Your task to perform on an android device: toggle priority inbox in the gmail app Image 0: 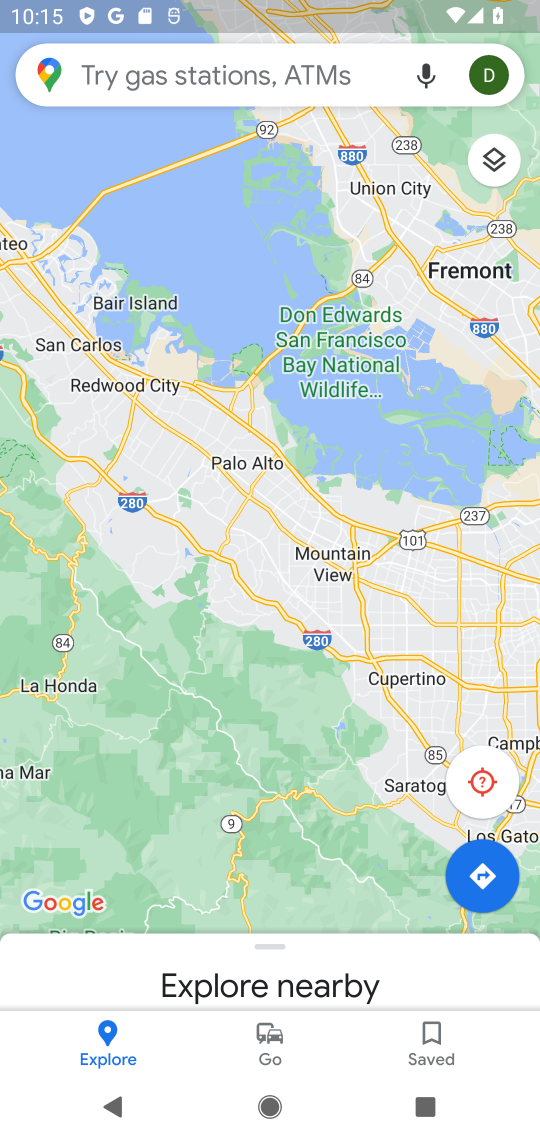
Step 0: press home button
Your task to perform on an android device: toggle priority inbox in the gmail app Image 1: 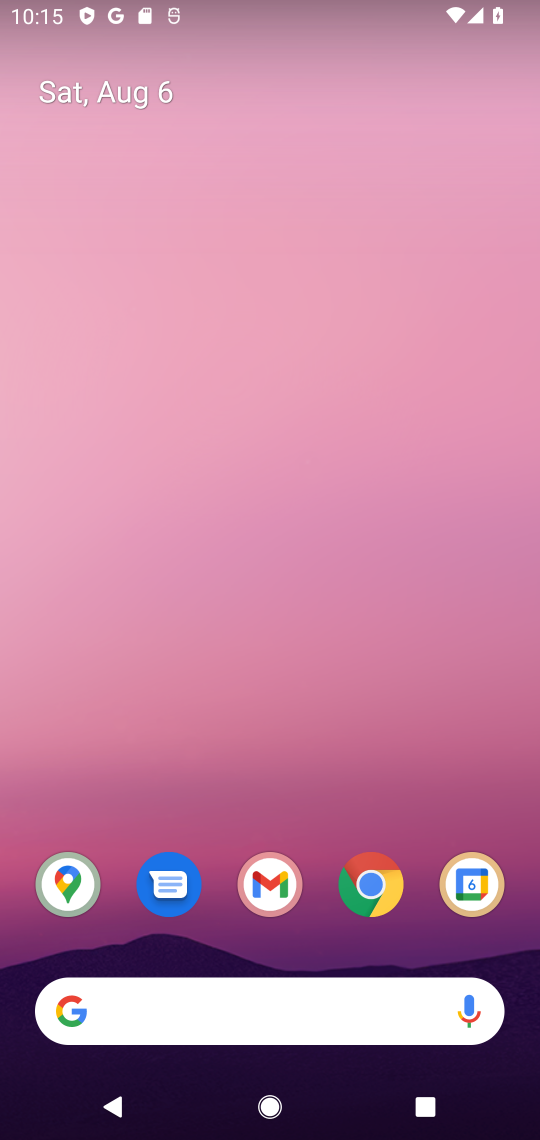
Step 1: click (271, 881)
Your task to perform on an android device: toggle priority inbox in the gmail app Image 2: 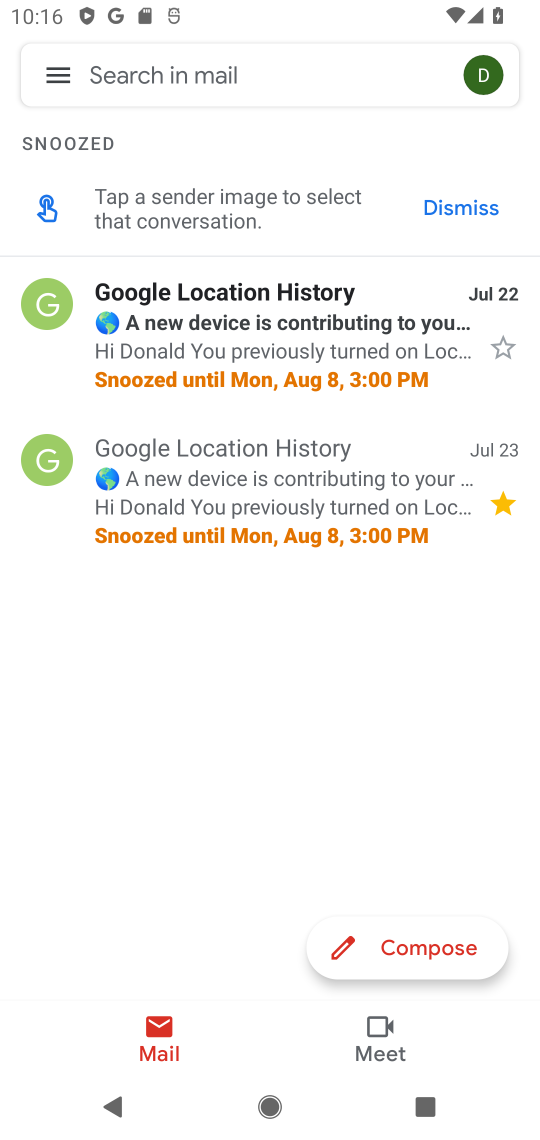
Step 2: click (58, 74)
Your task to perform on an android device: toggle priority inbox in the gmail app Image 3: 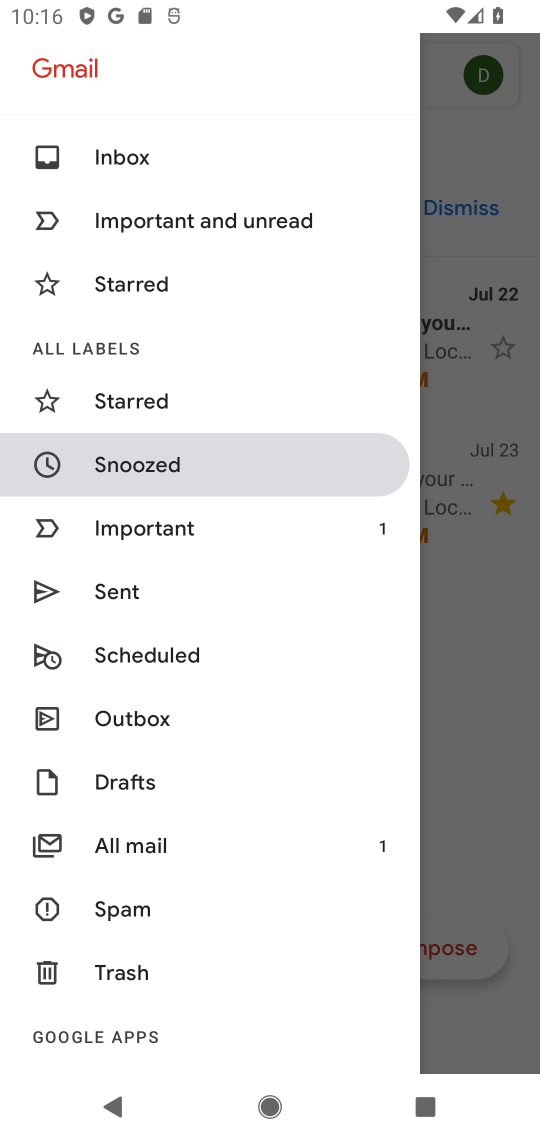
Step 3: drag from (234, 961) to (267, 305)
Your task to perform on an android device: toggle priority inbox in the gmail app Image 4: 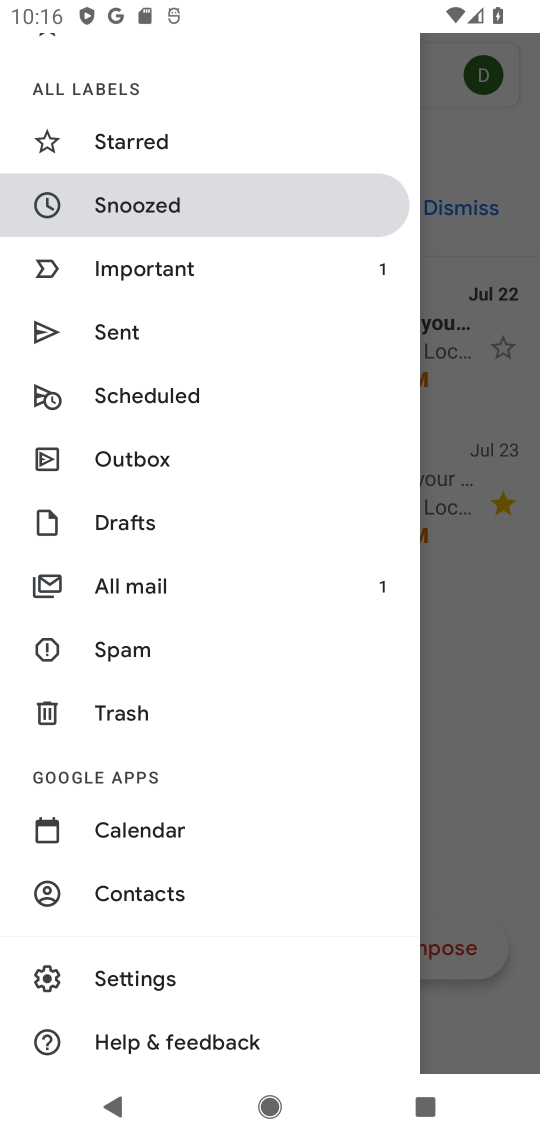
Step 4: click (142, 985)
Your task to perform on an android device: toggle priority inbox in the gmail app Image 5: 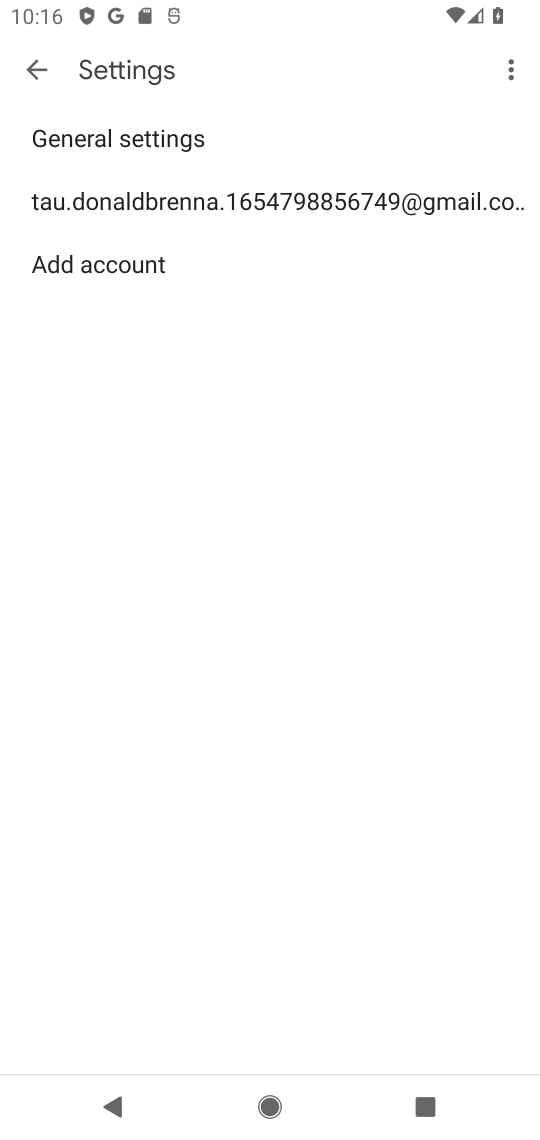
Step 5: click (250, 193)
Your task to perform on an android device: toggle priority inbox in the gmail app Image 6: 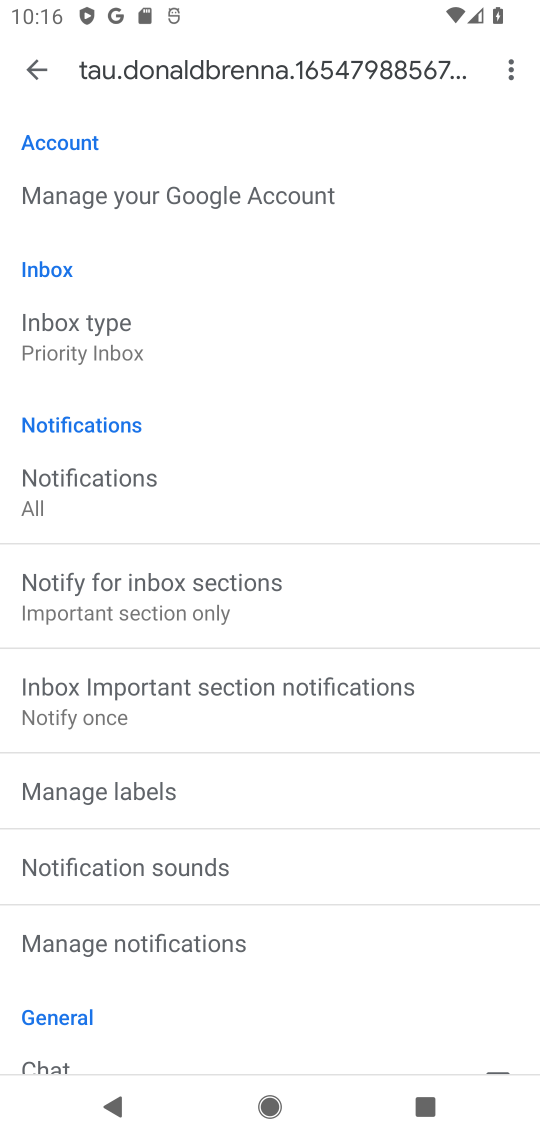
Step 6: click (90, 336)
Your task to perform on an android device: toggle priority inbox in the gmail app Image 7: 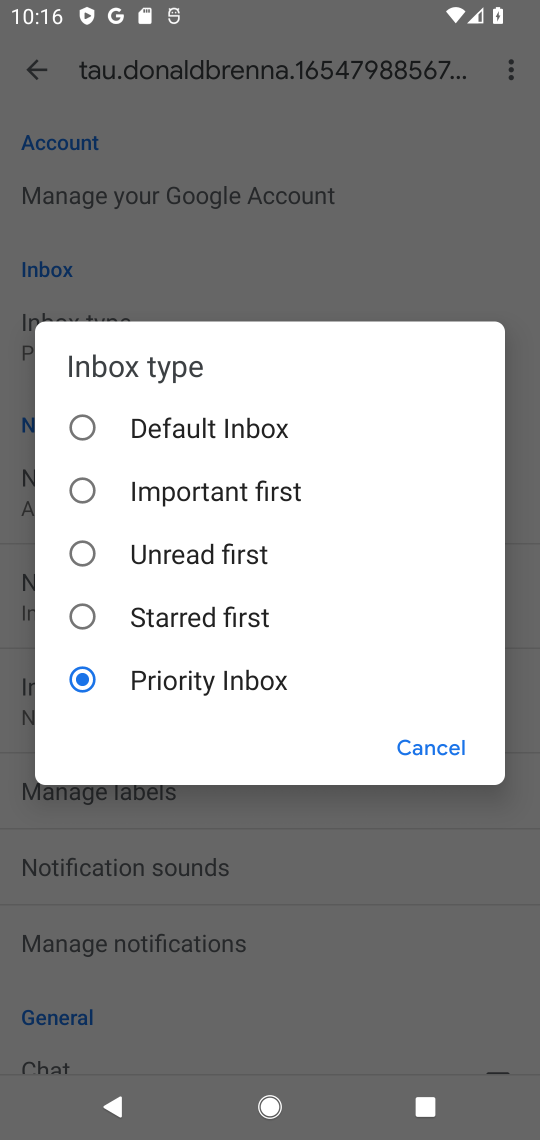
Step 7: click (80, 419)
Your task to perform on an android device: toggle priority inbox in the gmail app Image 8: 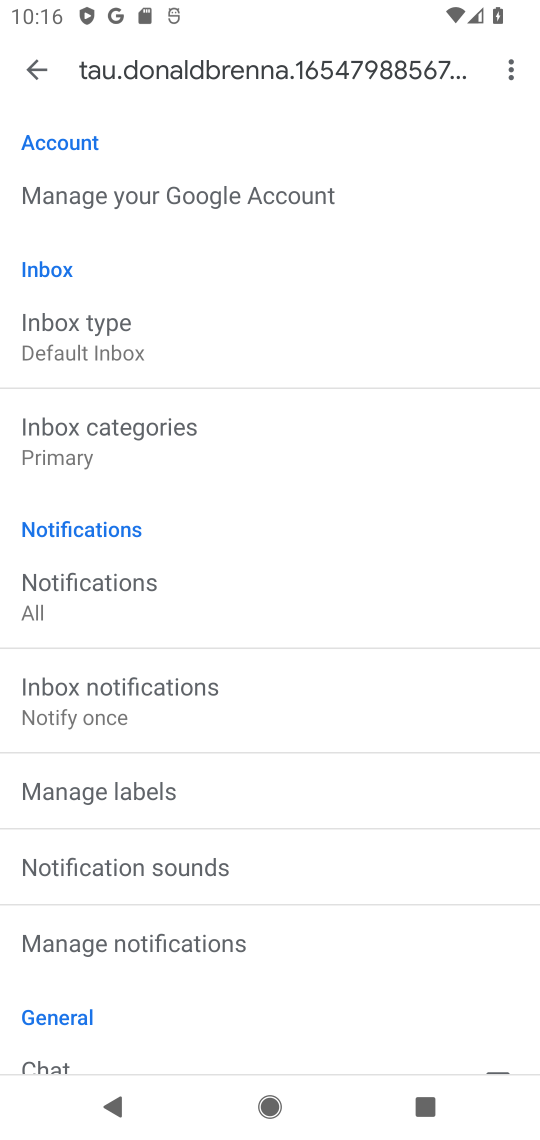
Step 8: task complete